Your task to perform on an android device: toggle pop-ups in chrome Image 0: 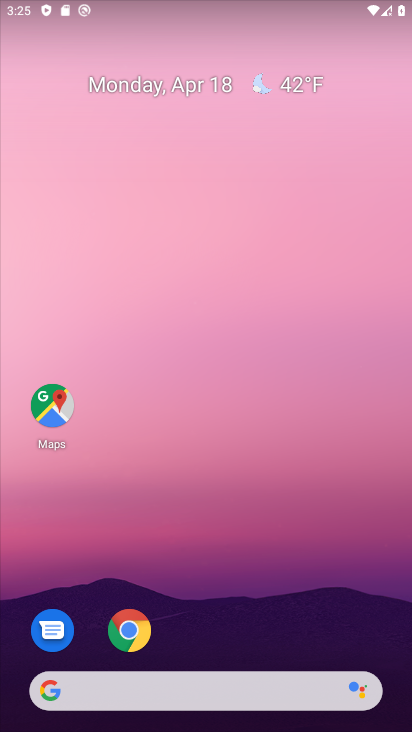
Step 0: drag from (265, 571) to (295, 385)
Your task to perform on an android device: toggle pop-ups in chrome Image 1: 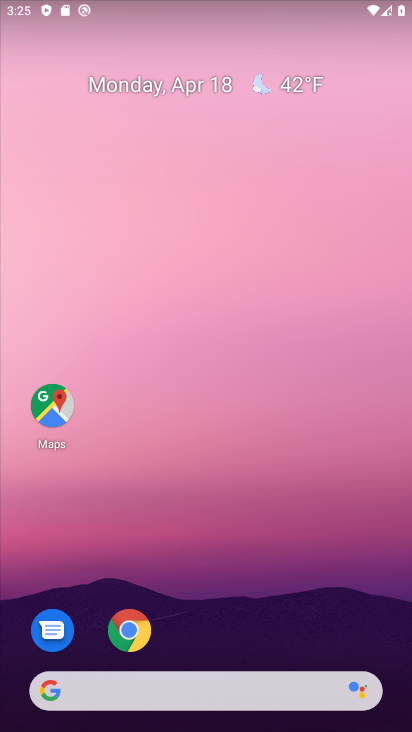
Step 1: drag from (267, 411) to (209, 0)
Your task to perform on an android device: toggle pop-ups in chrome Image 2: 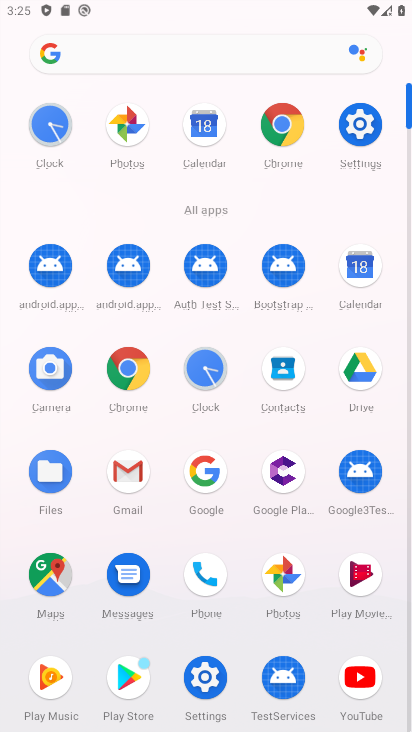
Step 2: click (131, 365)
Your task to perform on an android device: toggle pop-ups in chrome Image 3: 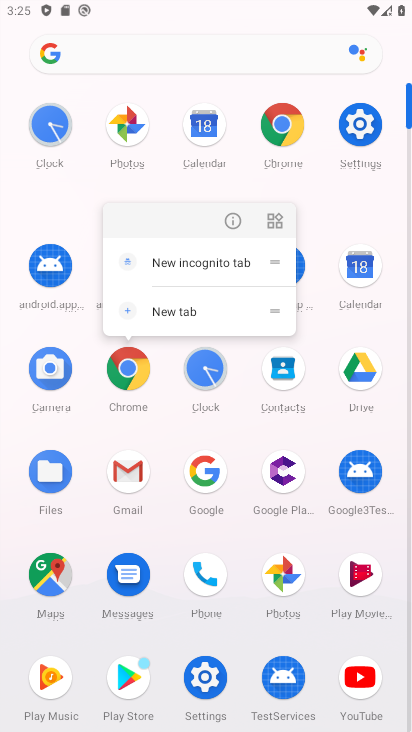
Step 3: click (133, 362)
Your task to perform on an android device: toggle pop-ups in chrome Image 4: 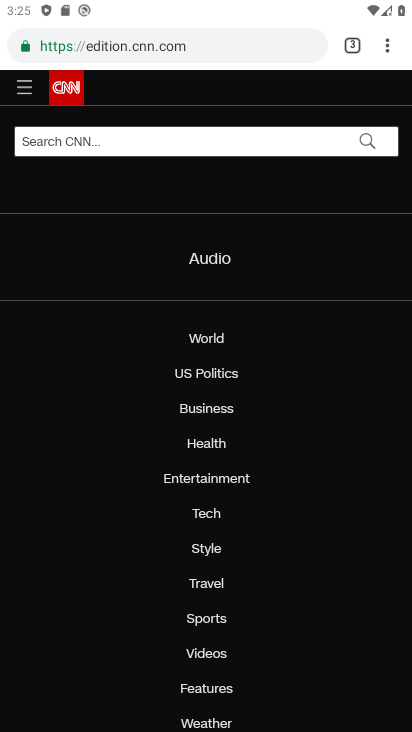
Step 4: click (385, 60)
Your task to perform on an android device: toggle pop-ups in chrome Image 5: 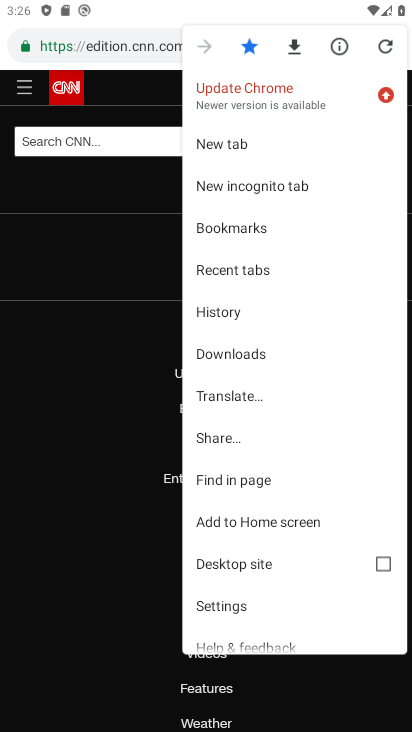
Step 5: click (249, 607)
Your task to perform on an android device: toggle pop-ups in chrome Image 6: 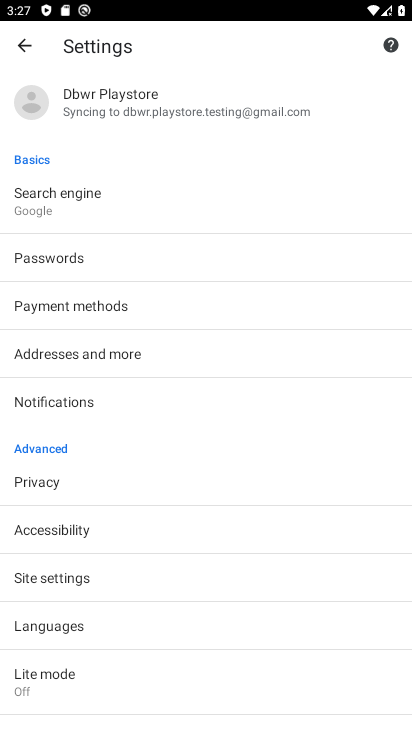
Step 6: click (118, 574)
Your task to perform on an android device: toggle pop-ups in chrome Image 7: 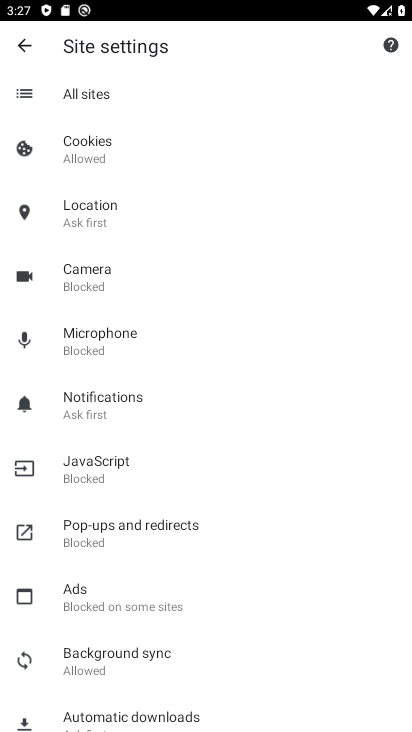
Step 7: click (157, 536)
Your task to perform on an android device: toggle pop-ups in chrome Image 8: 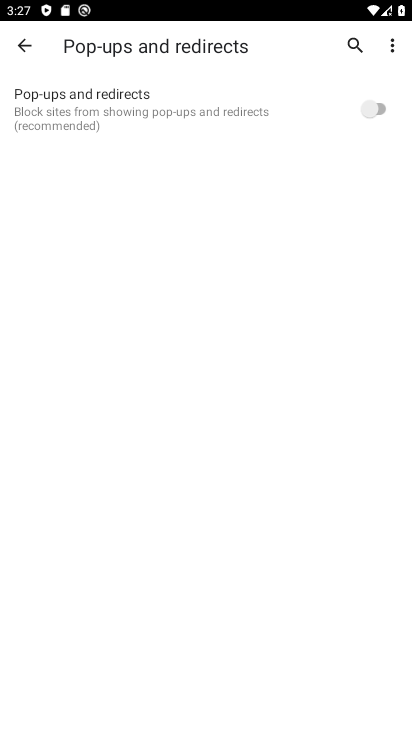
Step 8: click (371, 127)
Your task to perform on an android device: toggle pop-ups in chrome Image 9: 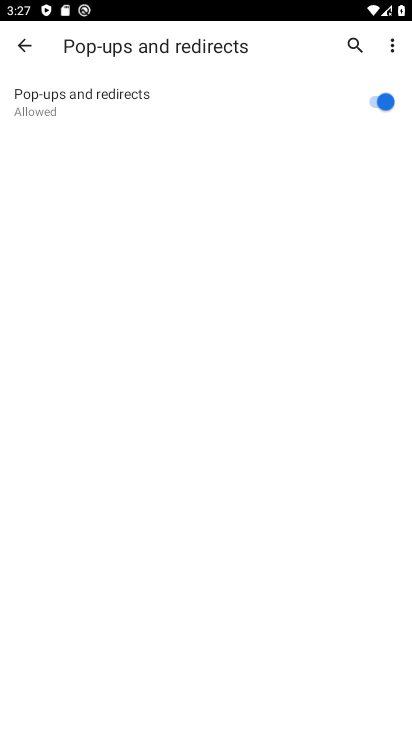
Step 9: task complete